Your task to perform on an android device: delete browsing data in the chrome app Image 0: 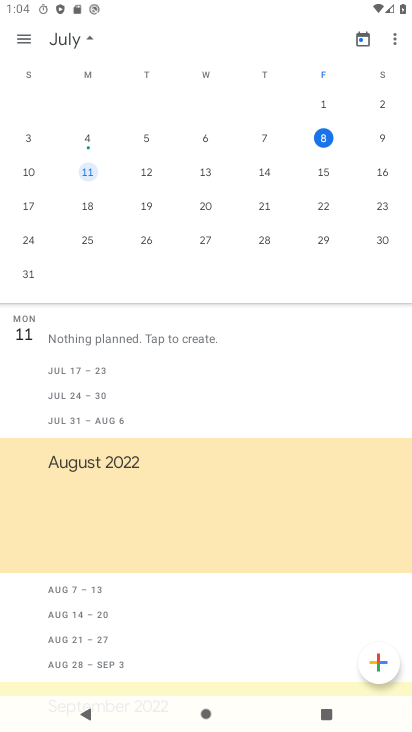
Step 0: press home button
Your task to perform on an android device: delete browsing data in the chrome app Image 1: 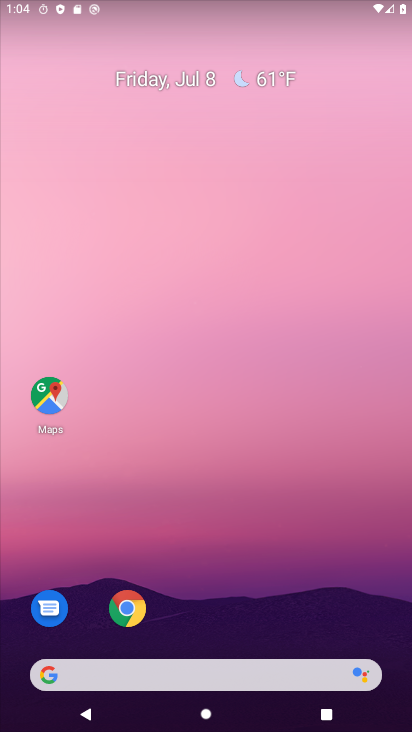
Step 1: click (125, 609)
Your task to perform on an android device: delete browsing data in the chrome app Image 2: 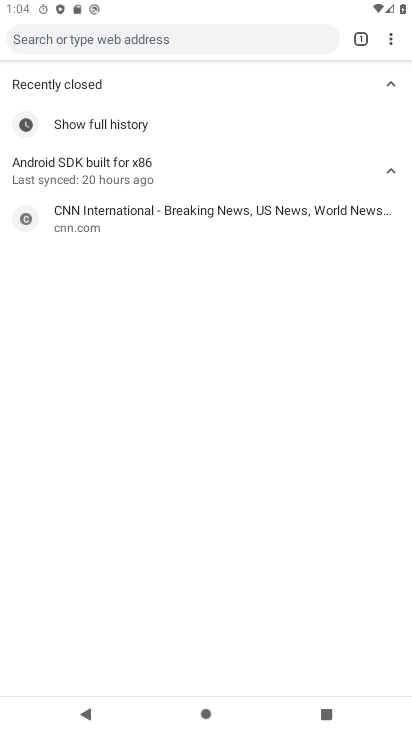
Step 2: click (388, 35)
Your task to perform on an android device: delete browsing data in the chrome app Image 3: 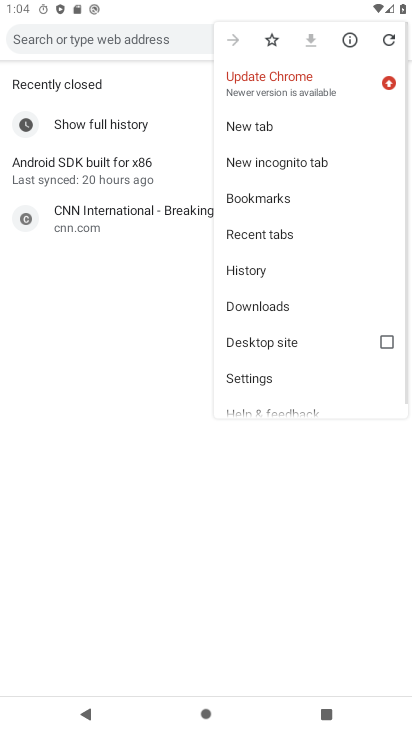
Step 3: click (247, 374)
Your task to perform on an android device: delete browsing data in the chrome app Image 4: 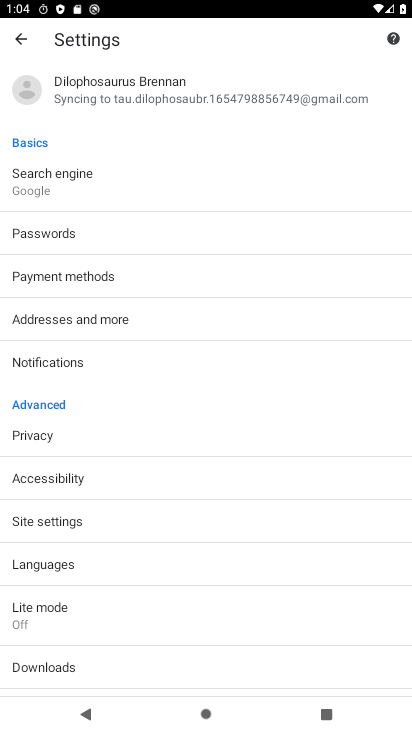
Step 4: click (37, 430)
Your task to perform on an android device: delete browsing data in the chrome app Image 5: 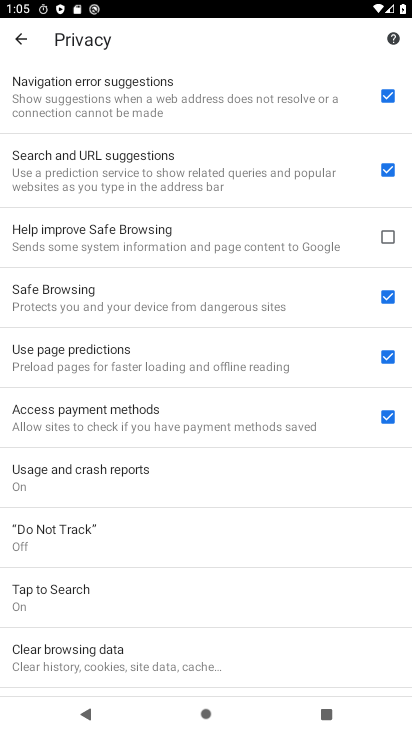
Step 5: drag from (195, 554) to (235, 147)
Your task to perform on an android device: delete browsing data in the chrome app Image 6: 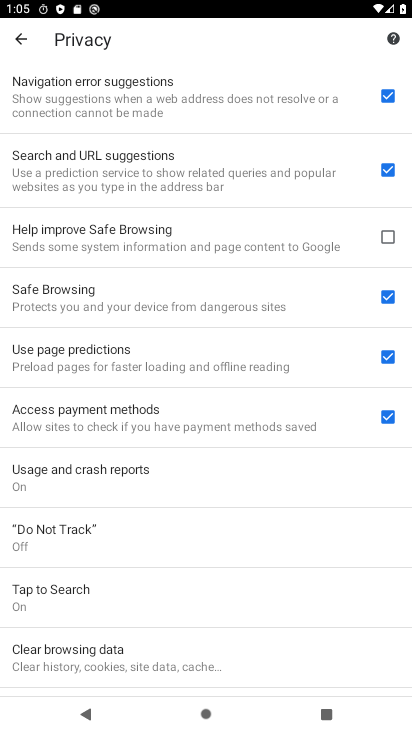
Step 6: click (120, 643)
Your task to perform on an android device: delete browsing data in the chrome app Image 7: 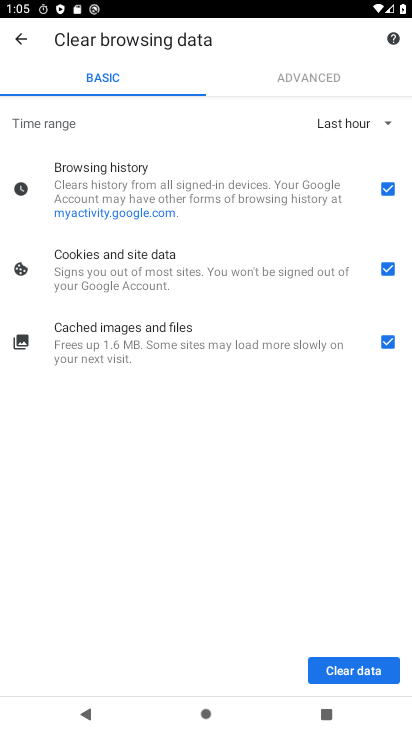
Step 7: click (345, 672)
Your task to perform on an android device: delete browsing data in the chrome app Image 8: 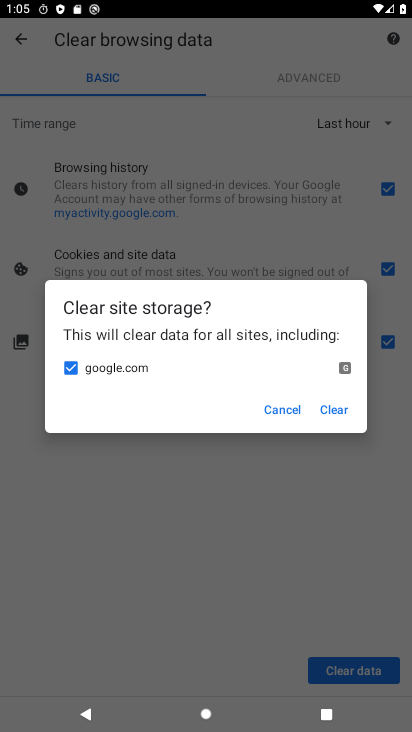
Step 8: click (331, 398)
Your task to perform on an android device: delete browsing data in the chrome app Image 9: 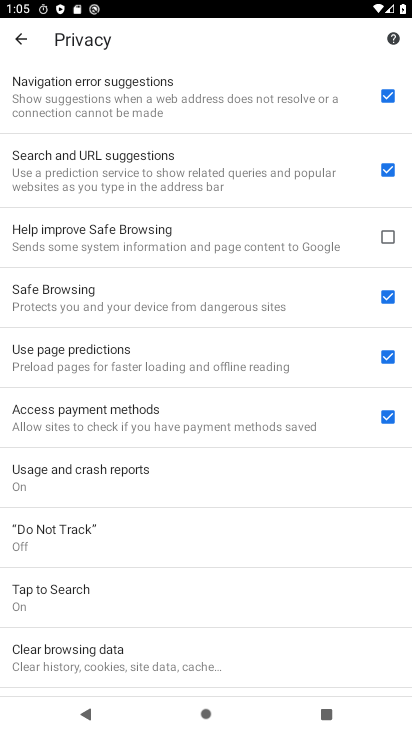
Step 9: task complete